Your task to perform on an android device: change the clock style Image 0: 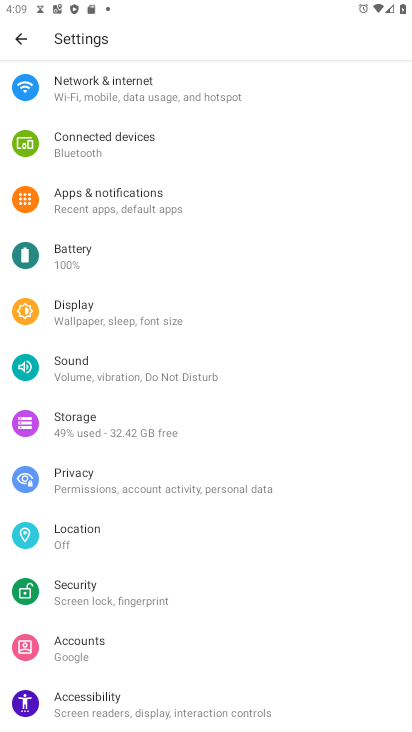
Step 0: press home button
Your task to perform on an android device: change the clock style Image 1: 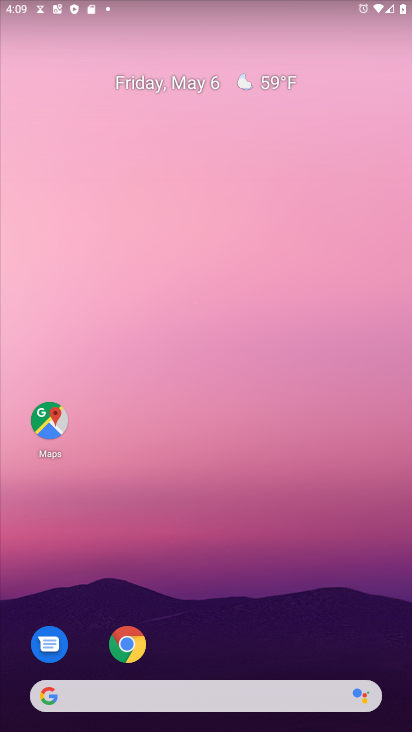
Step 1: drag from (187, 615) to (242, 21)
Your task to perform on an android device: change the clock style Image 2: 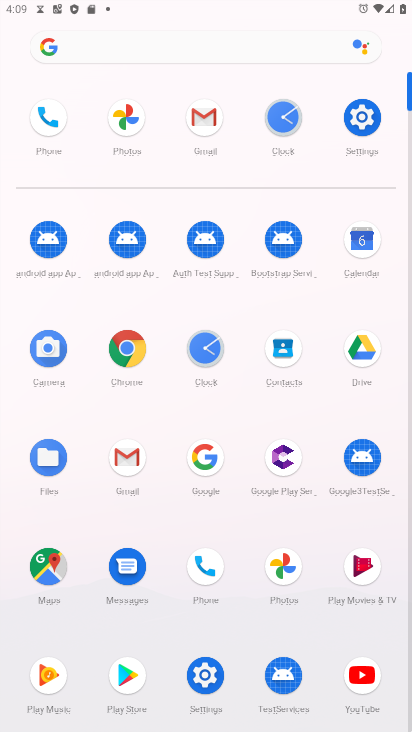
Step 2: click (203, 347)
Your task to perform on an android device: change the clock style Image 3: 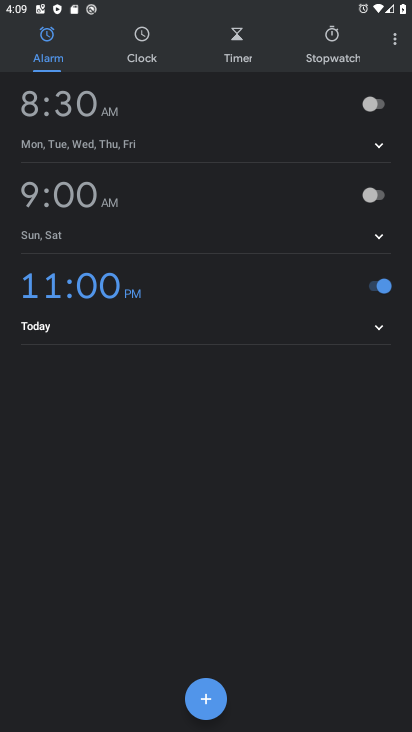
Step 3: click (396, 47)
Your task to perform on an android device: change the clock style Image 4: 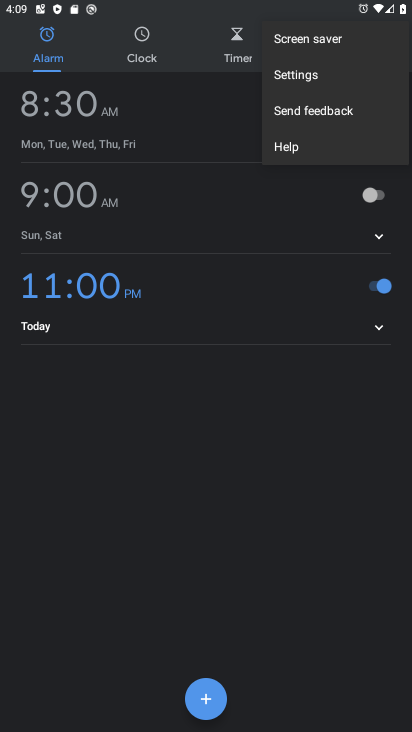
Step 4: click (304, 69)
Your task to perform on an android device: change the clock style Image 5: 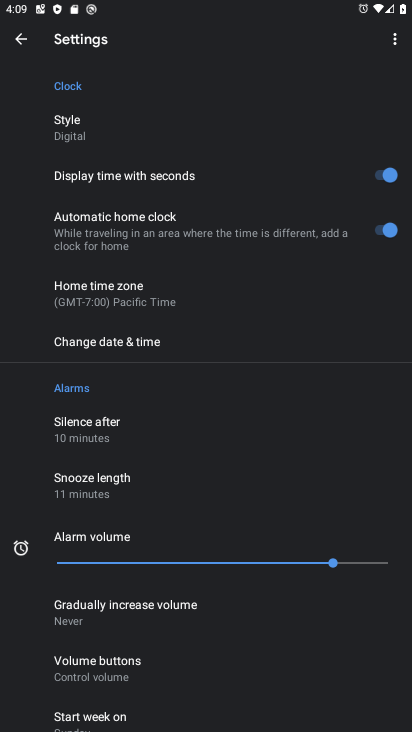
Step 5: click (68, 133)
Your task to perform on an android device: change the clock style Image 6: 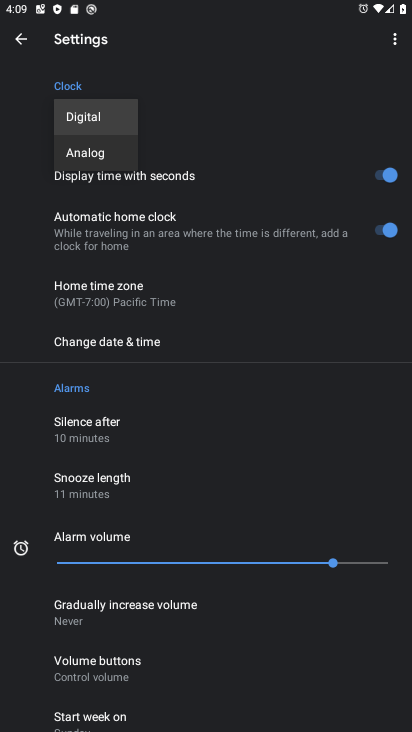
Step 6: click (86, 147)
Your task to perform on an android device: change the clock style Image 7: 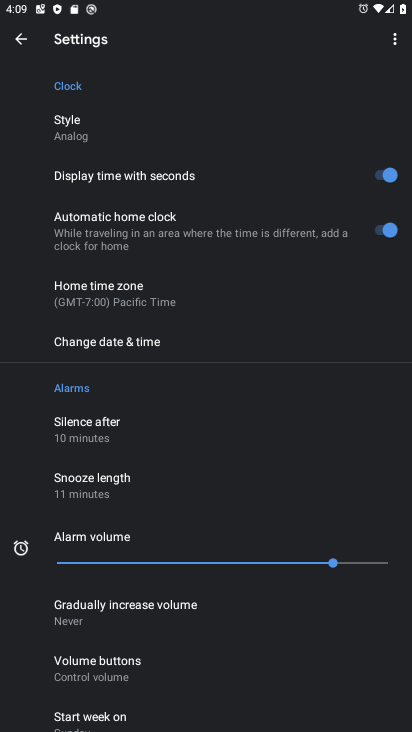
Step 7: task complete